Your task to perform on an android device: change the upload size in google photos Image 0: 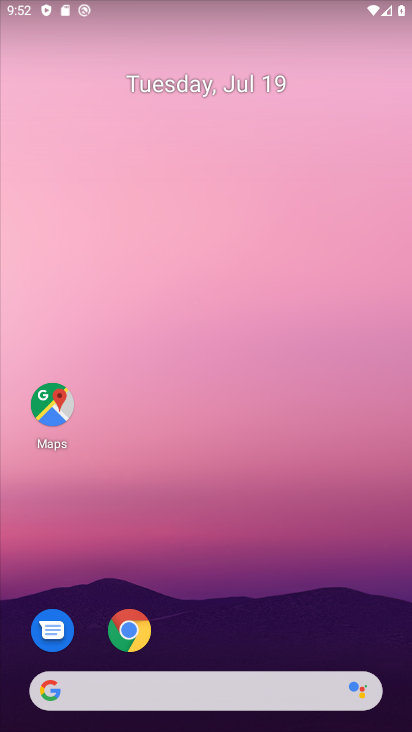
Step 0: drag from (134, 662) to (216, 68)
Your task to perform on an android device: change the upload size in google photos Image 1: 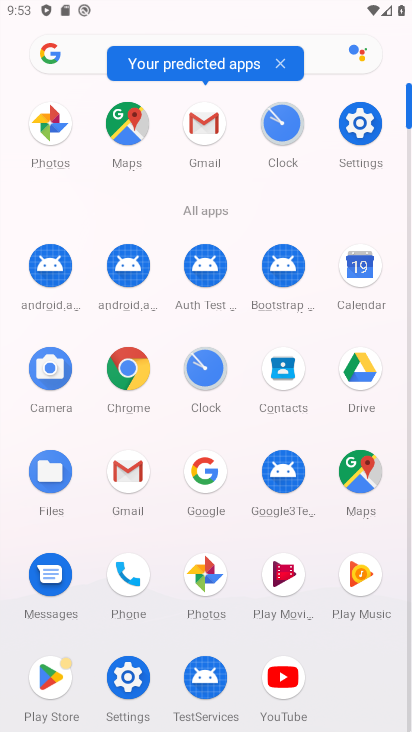
Step 1: click (207, 575)
Your task to perform on an android device: change the upload size in google photos Image 2: 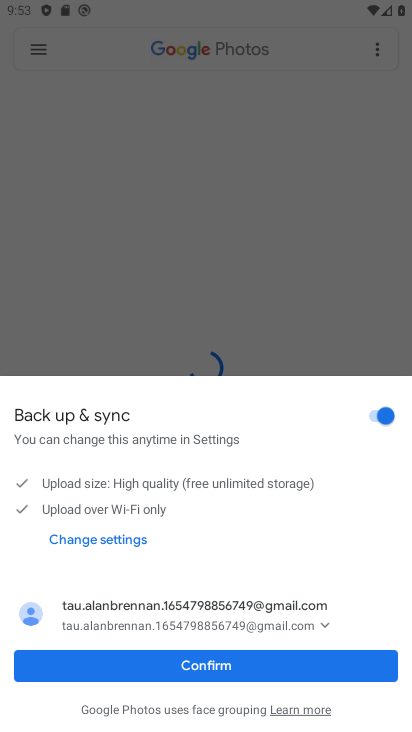
Step 2: click (237, 672)
Your task to perform on an android device: change the upload size in google photos Image 3: 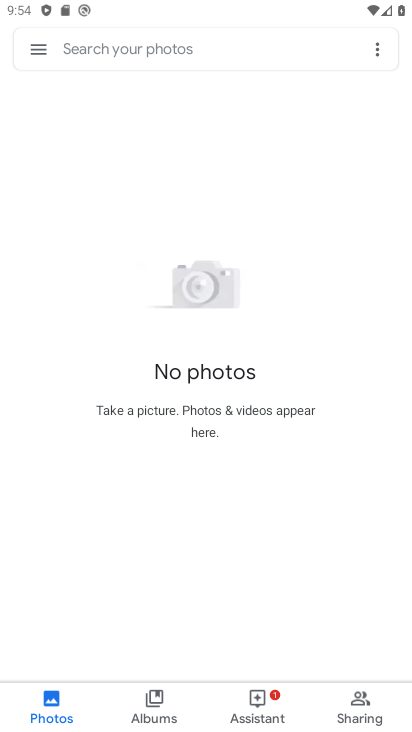
Step 3: click (39, 51)
Your task to perform on an android device: change the upload size in google photos Image 4: 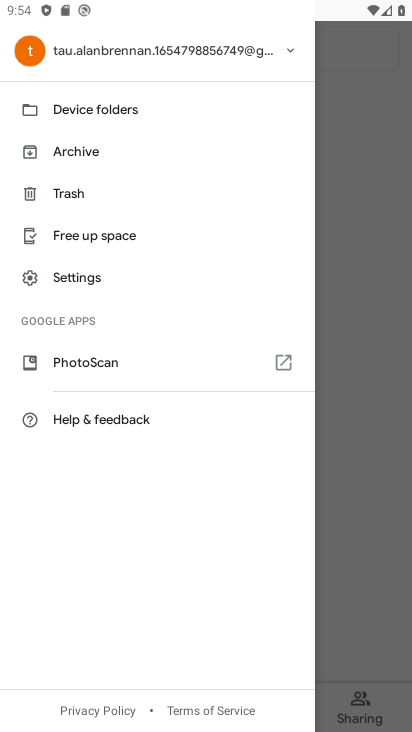
Step 4: click (67, 276)
Your task to perform on an android device: change the upload size in google photos Image 5: 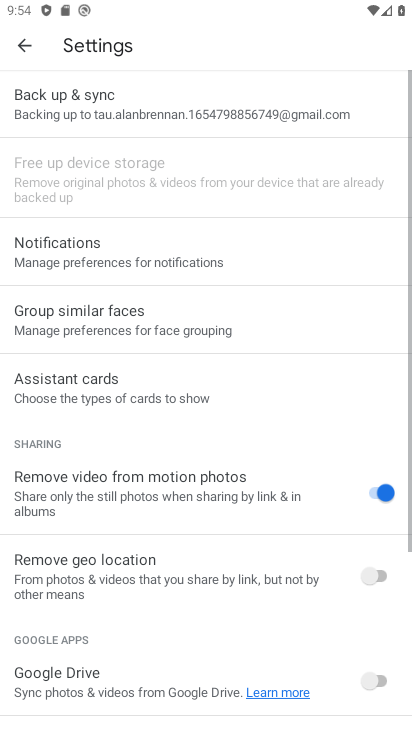
Step 5: click (66, 103)
Your task to perform on an android device: change the upload size in google photos Image 6: 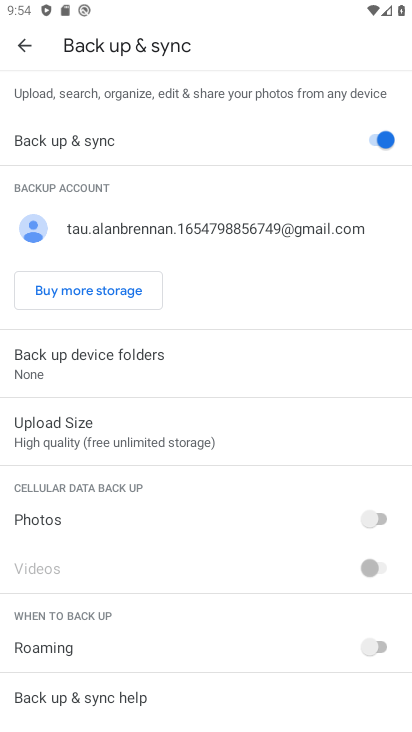
Step 6: click (67, 423)
Your task to perform on an android device: change the upload size in google photos Image 7: 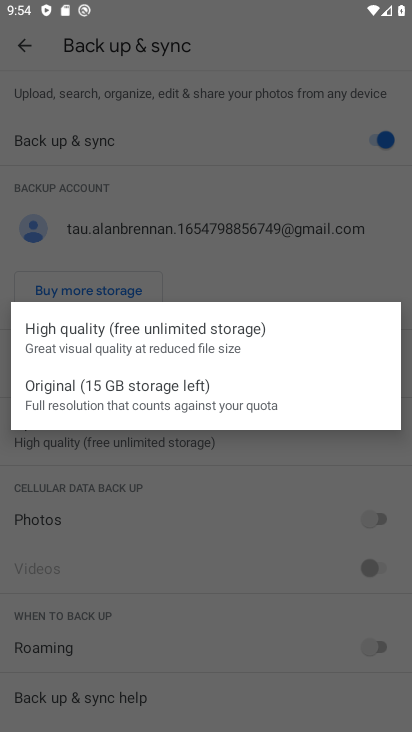
Step 7: click (94, 394)
Your task to perform on an android device: change the upload size in google photos Image 8: 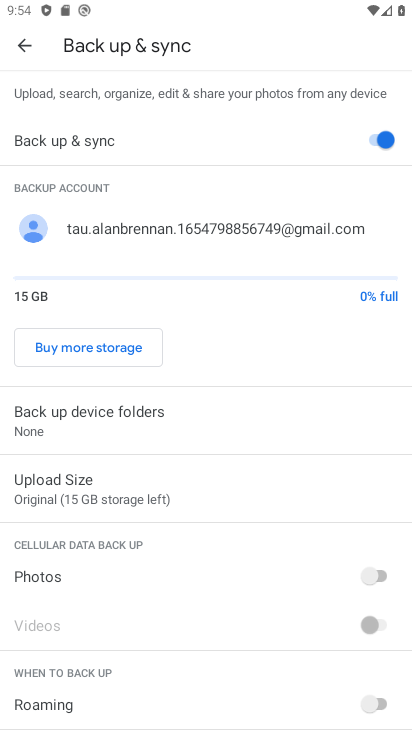
Step 8: task complete